Your task to perform on an android device: open app "Reddit" (install if not already installed) Image 0: 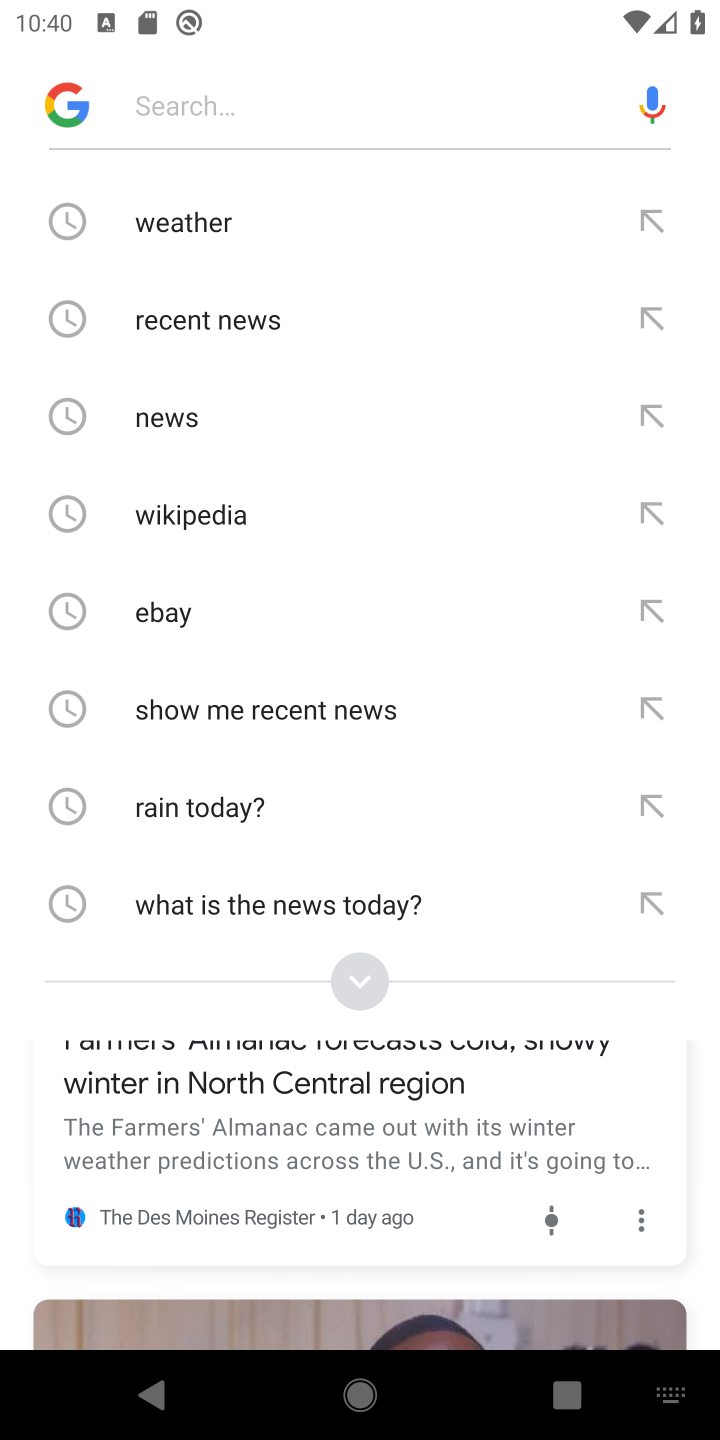
Step 0: press home button
Your task to perform on an android device: open app "Reddit" (install if not already installed) Image 1: 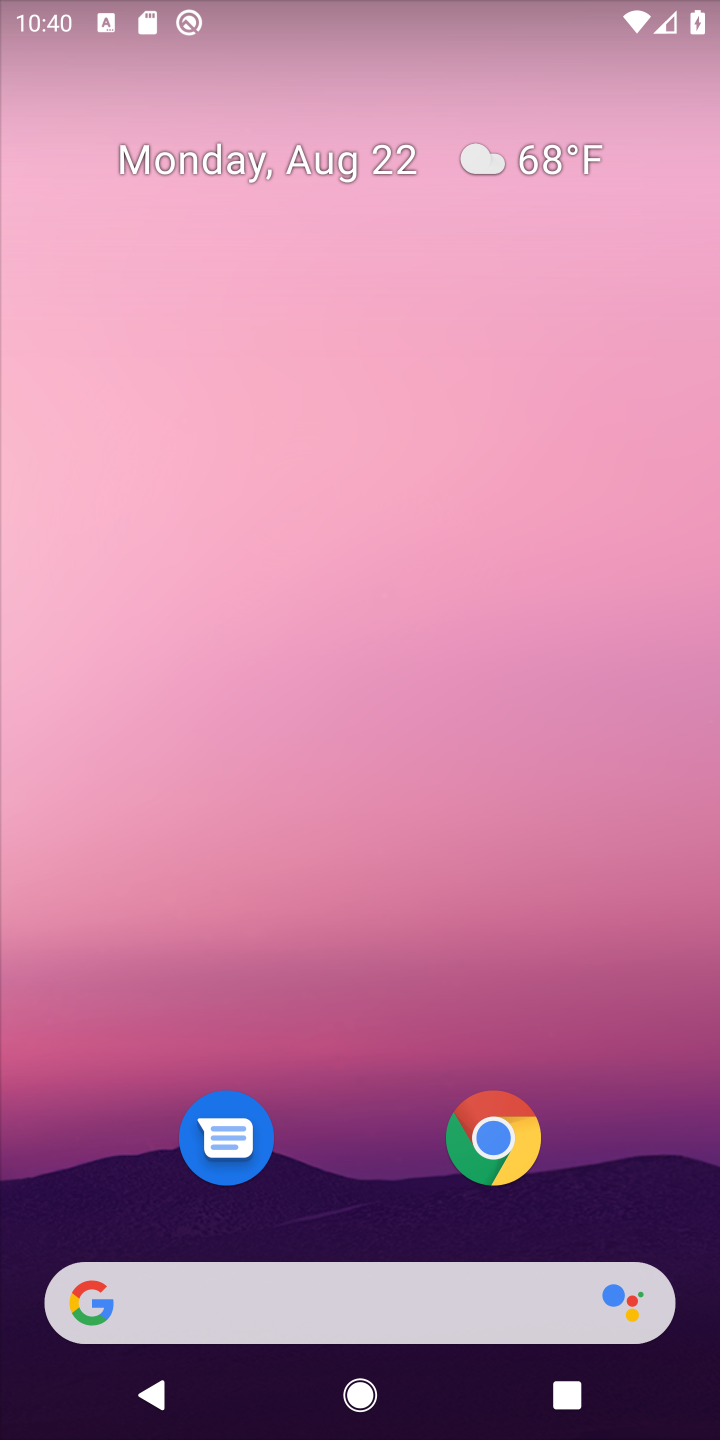
Step 1: drag from (370, 1218) to (400, 58)
Your task to perform on an android device: open app "Reddit" (install if not already installed) Image 2: 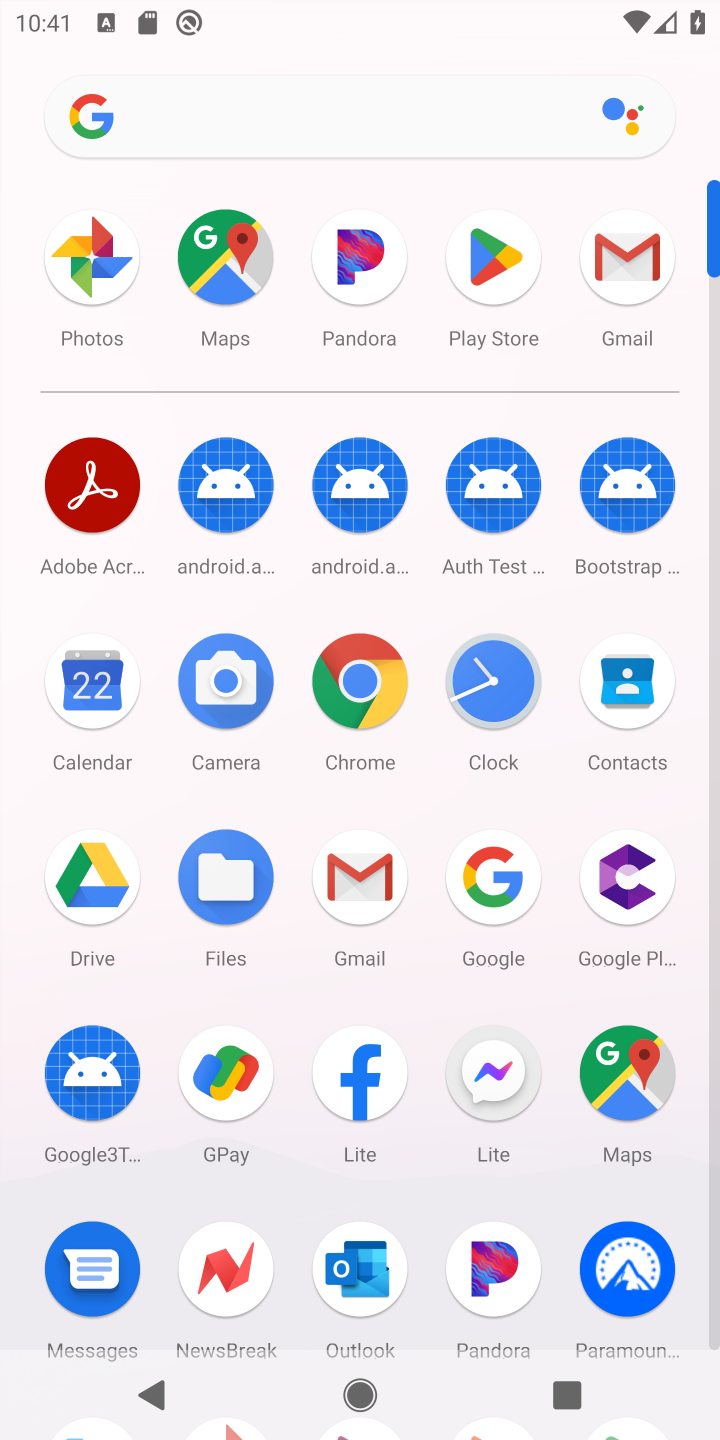
Step 2: click (489, 249)
Your task to perform on an android device: open app "Reddit" (install if not already installed) Image 3: 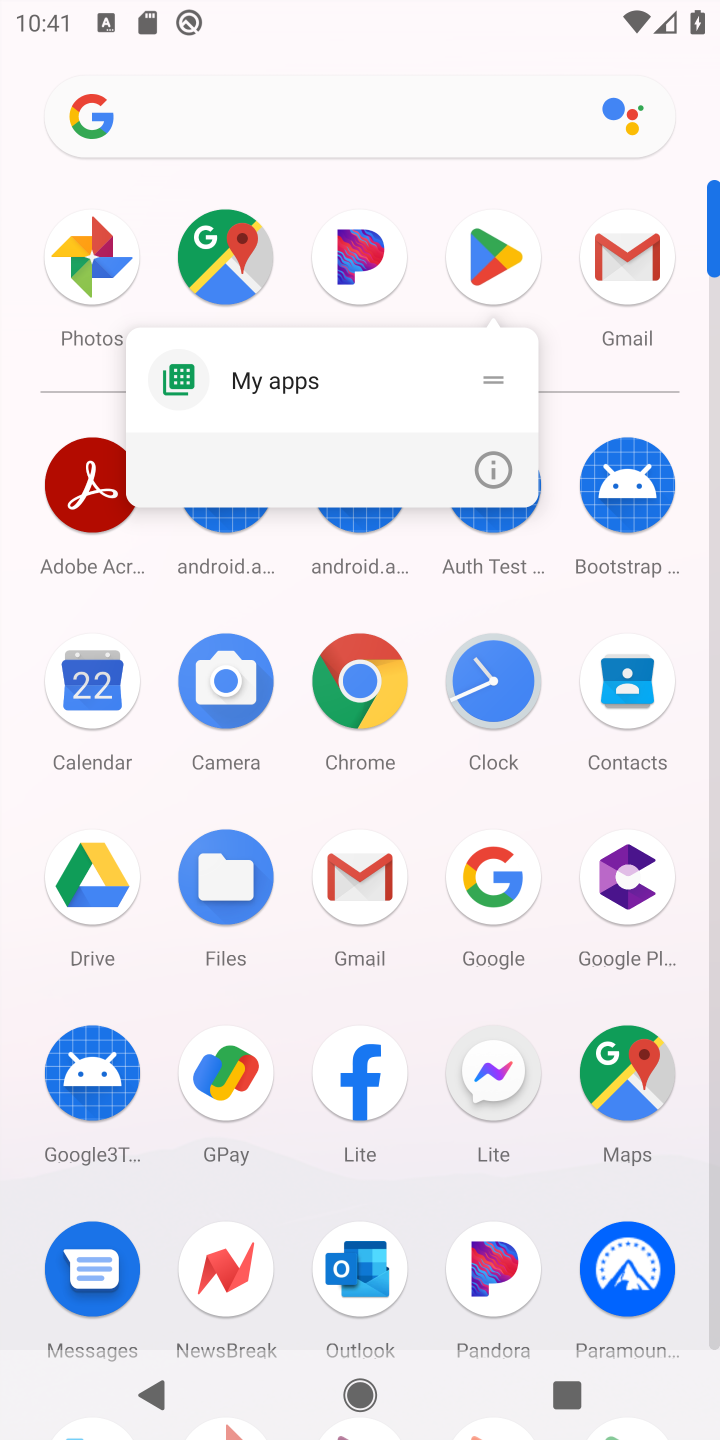
Step 3: click (489, 243)
Your task to perform on an android device: open app "Reddit" (install if not already installed) Image 4: 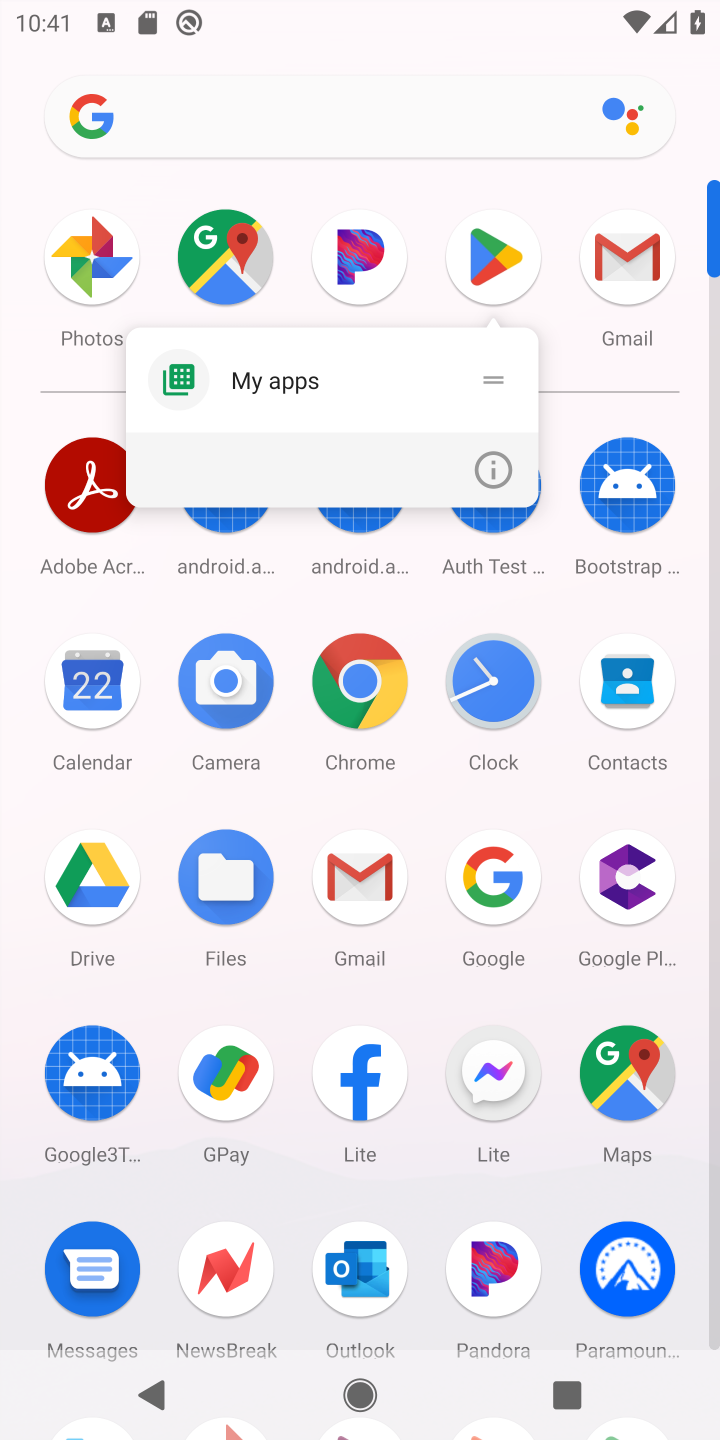
Step 4: click (500, 237)
Your task to perform on an android device: open app "Reddit" (install if not already installed) Image 5: 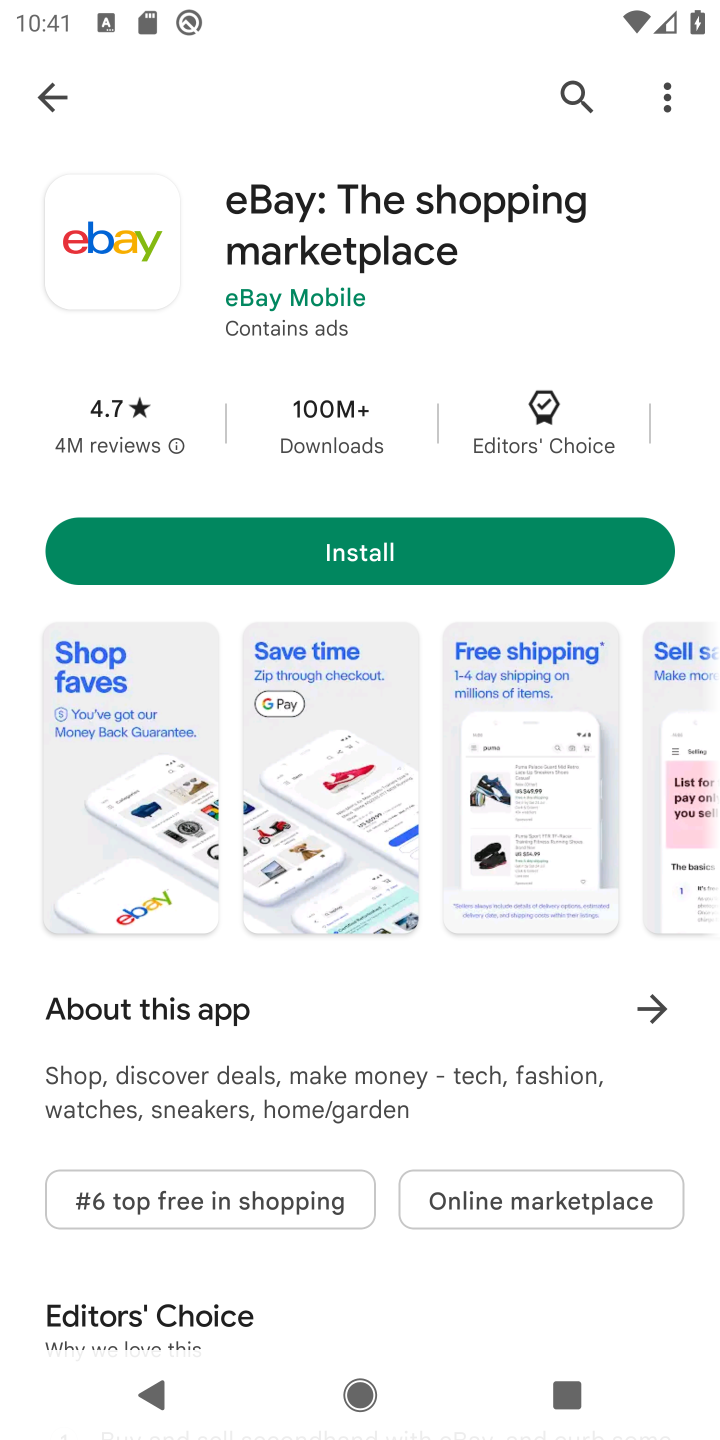
Step 5: click (572, 74)
Your task to perform on an android device: open app "Reddit" (install if not already installed) Image 6: 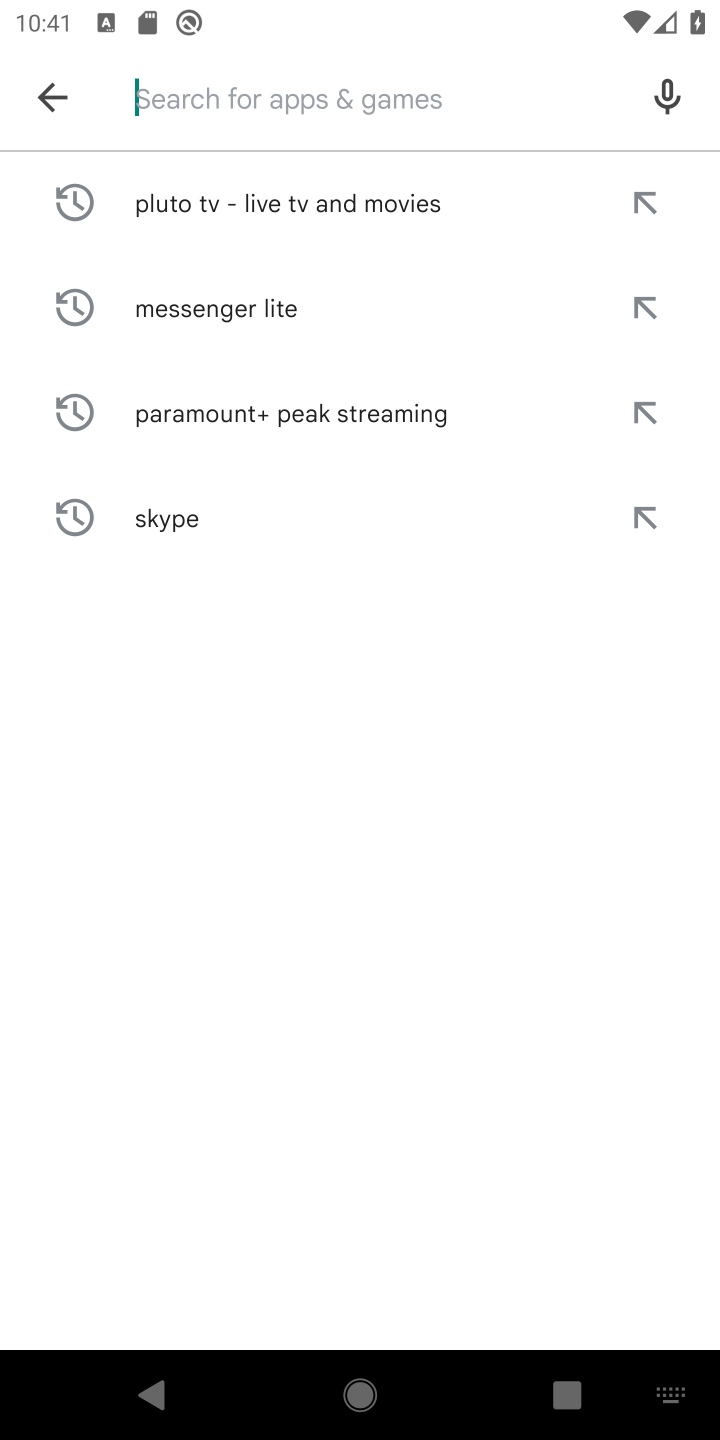
Step 6: type "Reddit"
Your task to perform on an android device: open app "Reddit" (install if not already installed) Image 7: 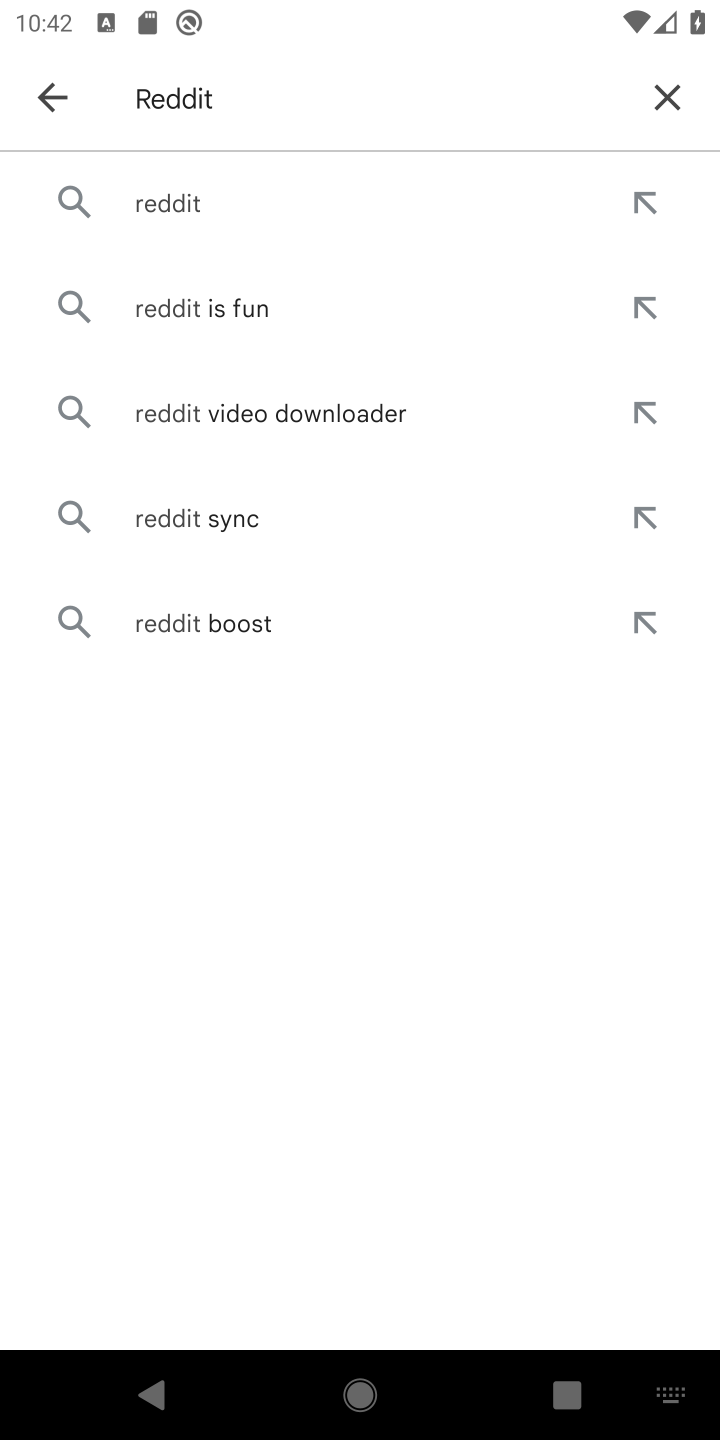
Step 7: click (225, 193)
Your task to perform on an android device: open app "Reddit" (install if not already installed) Image 8: 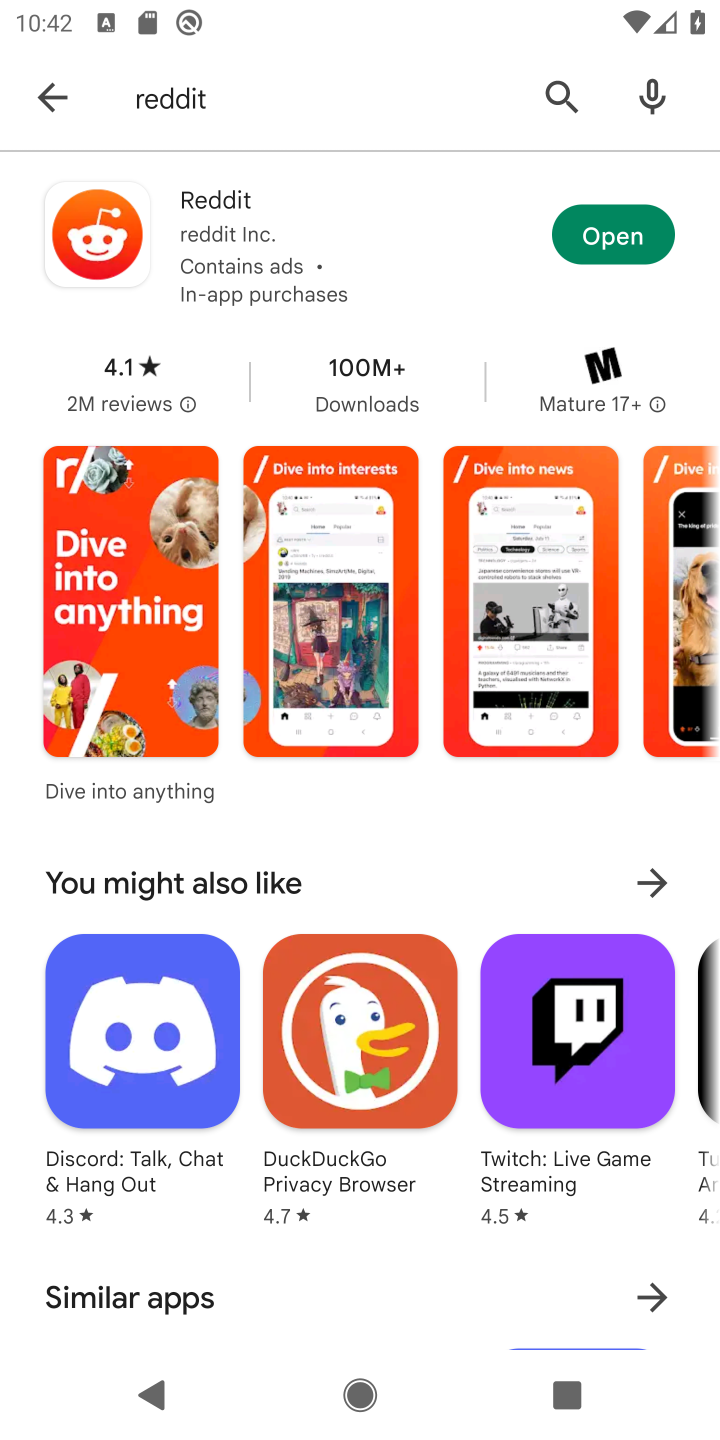
Step 8: click (600, 238)
Your task to perform on an android device: open app "Reddit" (install if not already installed) Image 9: 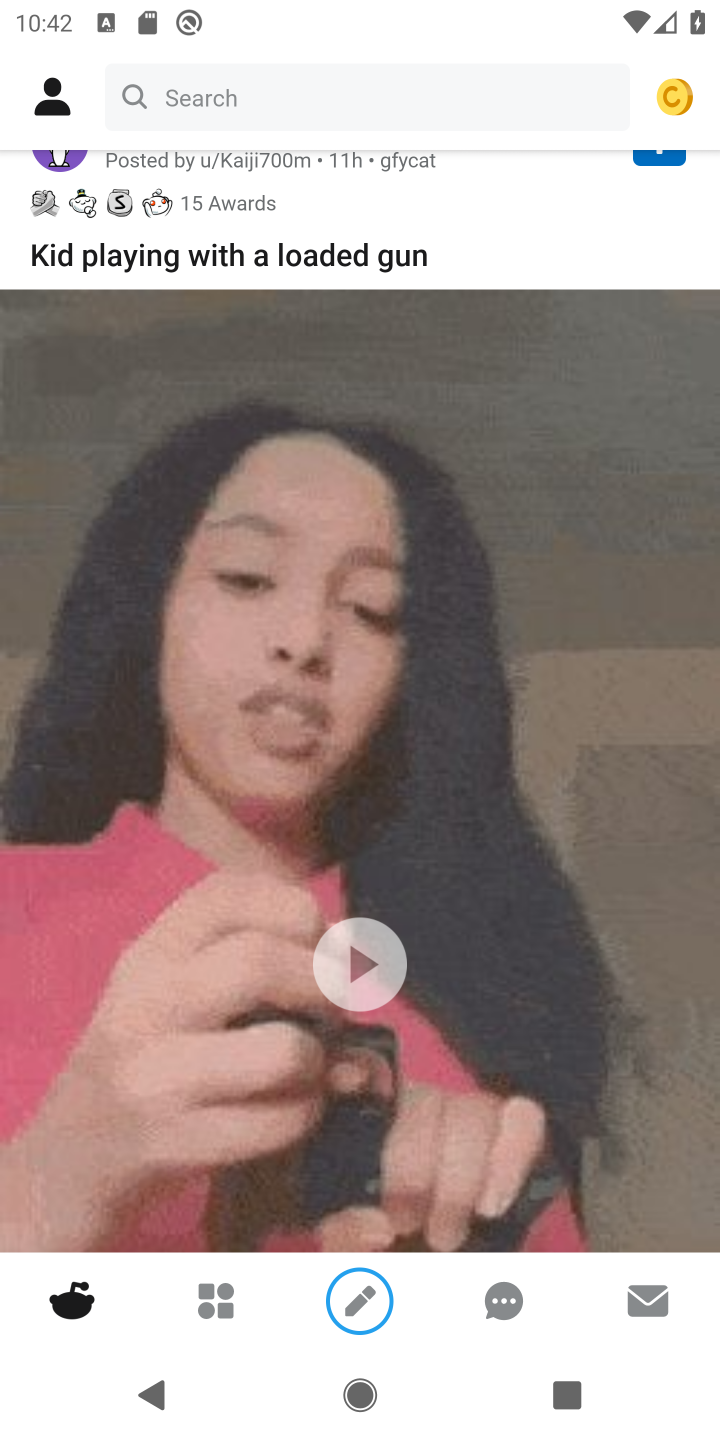
Step 9: task complete